Your task to perform on an android device: open a bookmark in the chrome app Image 0: 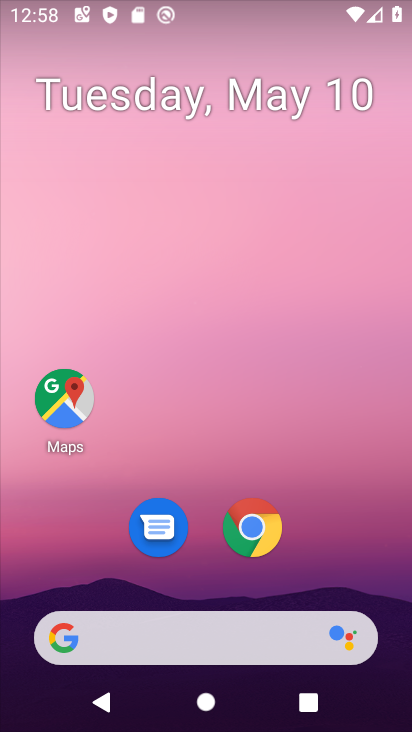
Step 0: click (262, 538)
Your task to perform on an android device: open a bookmark in the chrome app Image 1: 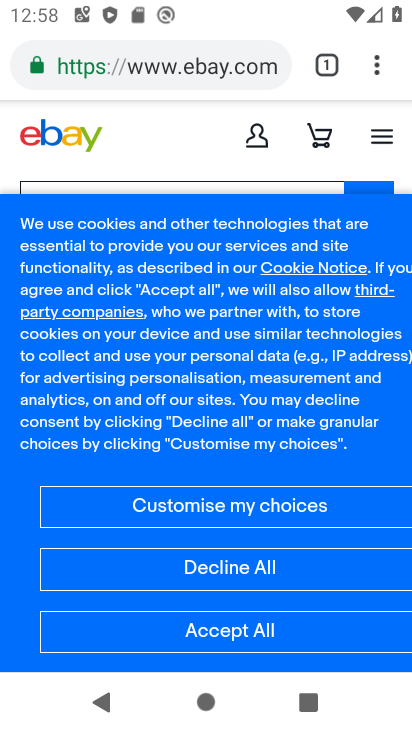
Step 1: click (381, 68)
Your task to perform on an android device: open a bookmark in the chrome app Image 2: 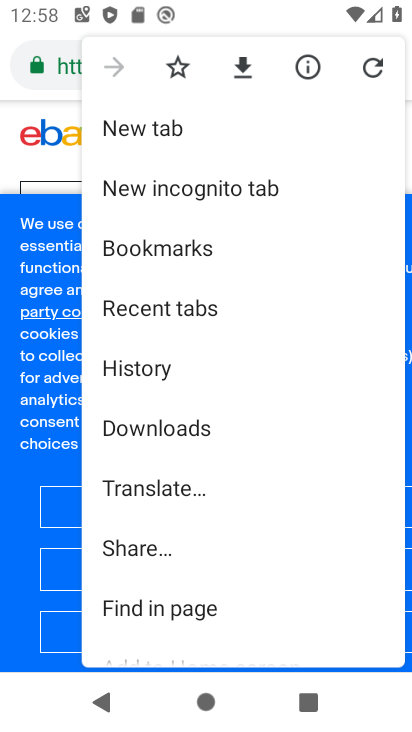
Step 2: click (124, 258)
Your task to perform on an android device: open a bookmark in the chrome app Image 3: 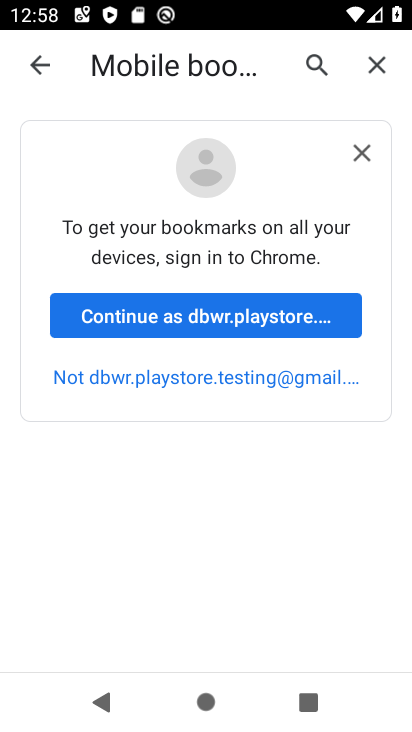
Step 3: click (150, 317)
Your task to perform on an android device: open a bookmark in the chrome app Image 4: 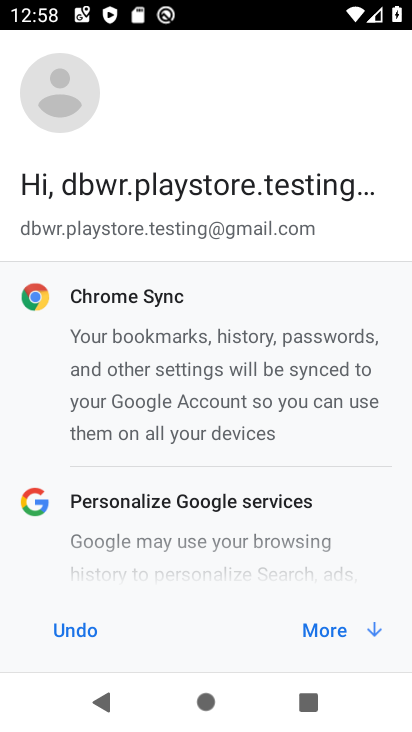
Step 4: click (335, 631)
Your task to perform on an android device: open a bookmark in the chrome app Image 5: 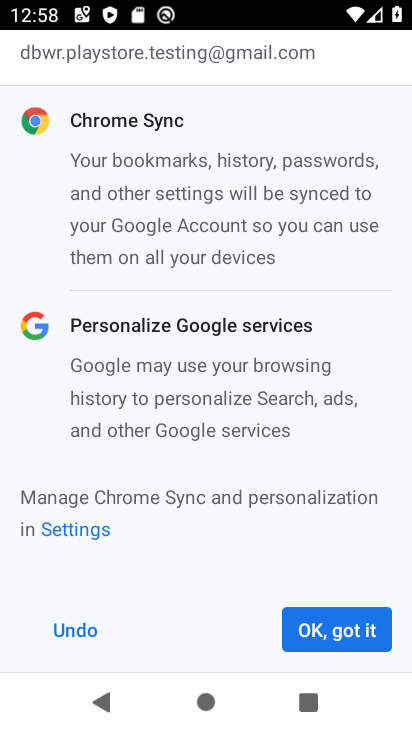
Step 5: click (324, 627)
Your task to perform on an android device: open a bookmark in the chrome app Image 6: 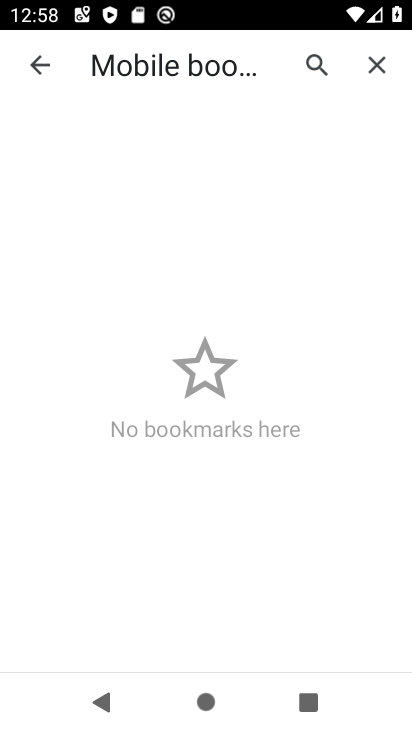
Step 6: drag from (182, 479) to (201, 227)
Your task to perform on an android device: open a bookmark in the chrome app Image 7: 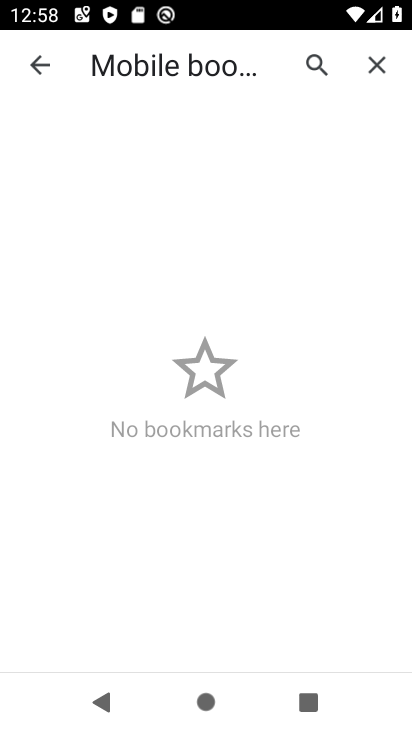
Step 7: click (213, 546)
Your task to perform on an android device: open a bookmark in the chrome app Image 8: 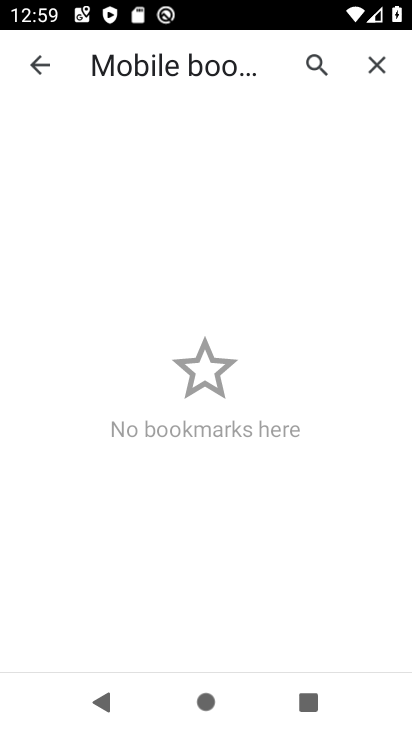
Step 8: task complete